Your task to perform on an android device: delete browsing data in the chrome app Image 0: 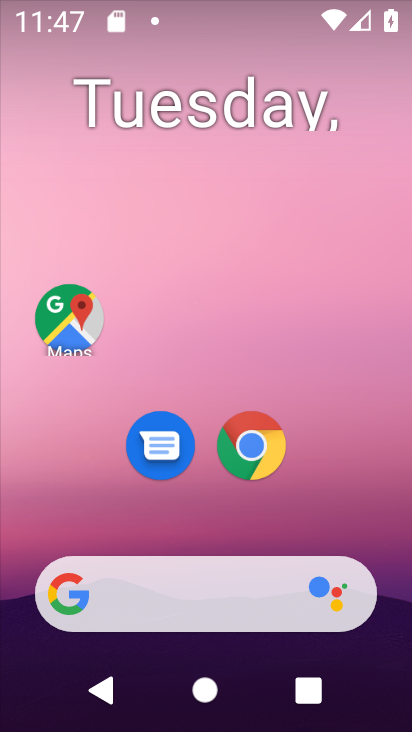
Step 0: drag from (387, 643) to (280, 100)
Your task to perform on an android device: delete browsing data in the chrome app Image 1: 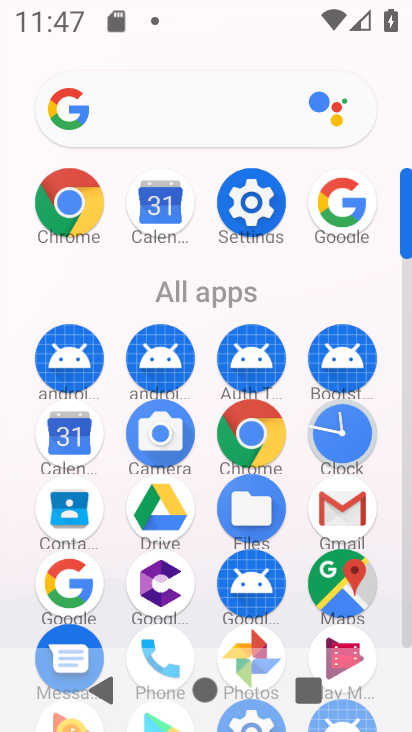
Step 1: click (259, 439)
Your task to perform on an android device: delete browsing data in the chrome app Image 2: 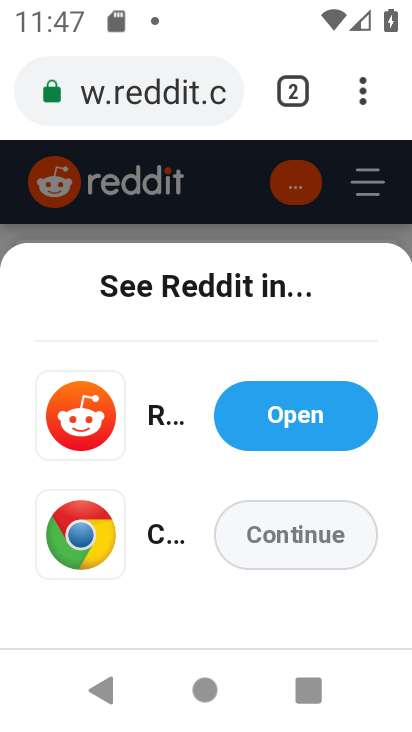
Step 2: press back button
Your task to perform on an android device: delete browsing data in the chrome app Image 3: 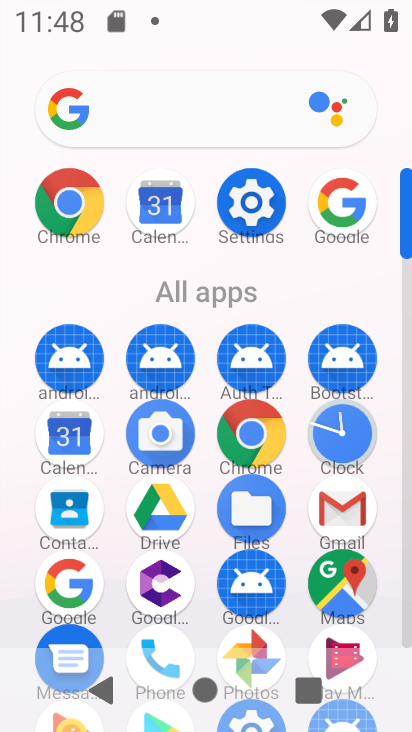
Step 3: click (74, 219)
Your task to perform on an android device: delete browsing data in the chrome app Image 4: 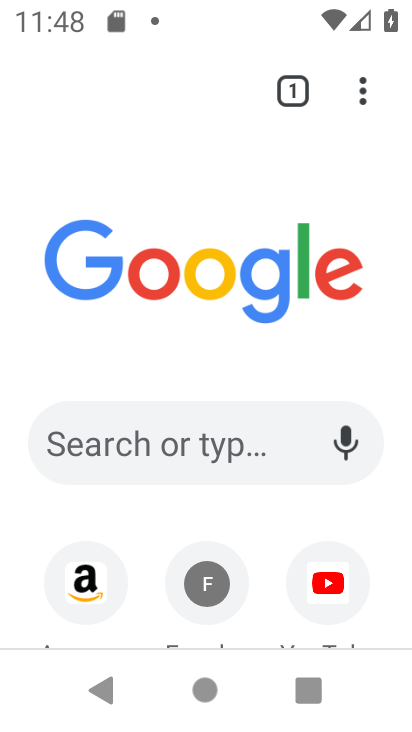
Step 4: press home button
Your task to perform on an android device: delete browsing data in the chrome app Image 5: 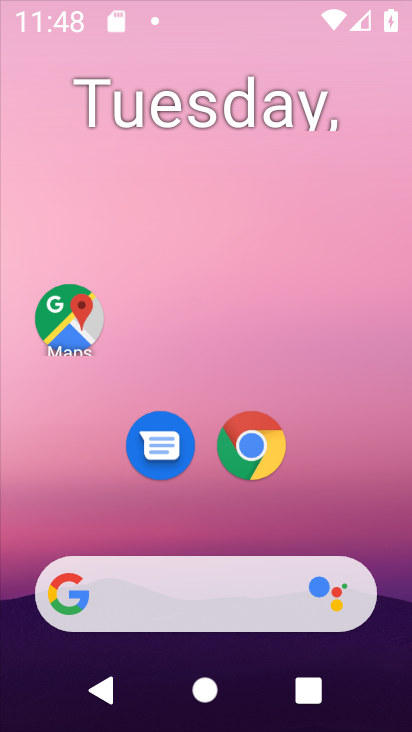
Step 5: drag from (391, 640) to (282, 80)
Your task to perform on an android device: delete browsing data in the chrome app Image 6: 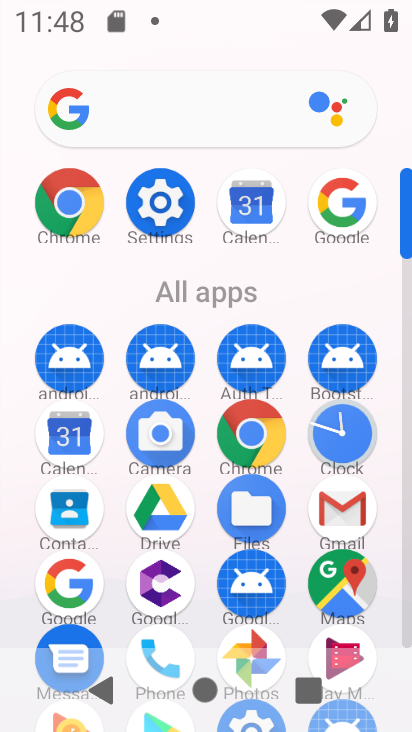
Step 6: click (82, 211)
Your task to perform on an android device: delete browsing data in the chrome app Image 7: 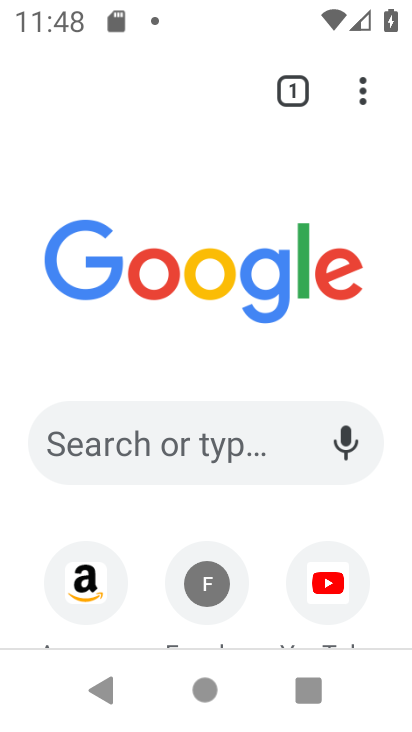
Step 7: click (365, 87)
Your task to perform on an android device: delete browsing data in the chrome app Image 8: 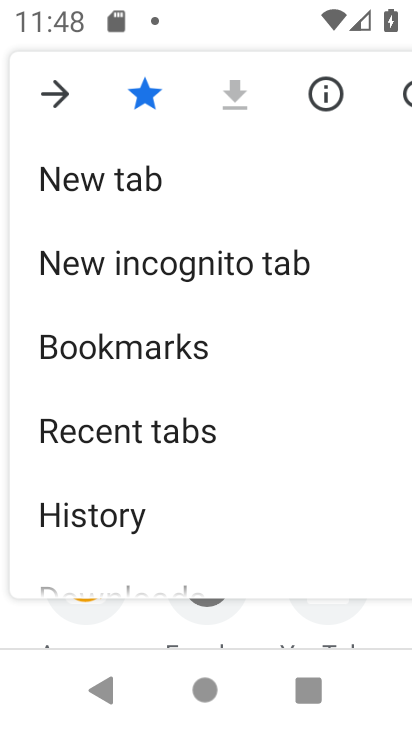
Step 8: click (187, 519)
Your task to perform on an android device: delete browsing data in the chrome app Image 9: 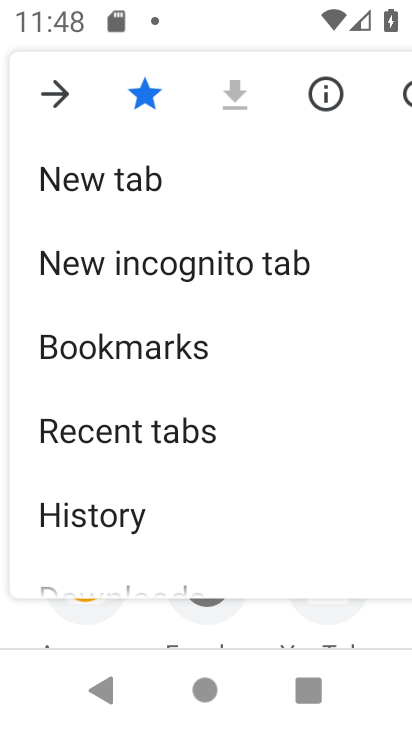
Step 9: drag from (212, 398) to (198, 118)
Your task to perform on an android device: delete browsing data in the chrome app Image 10: 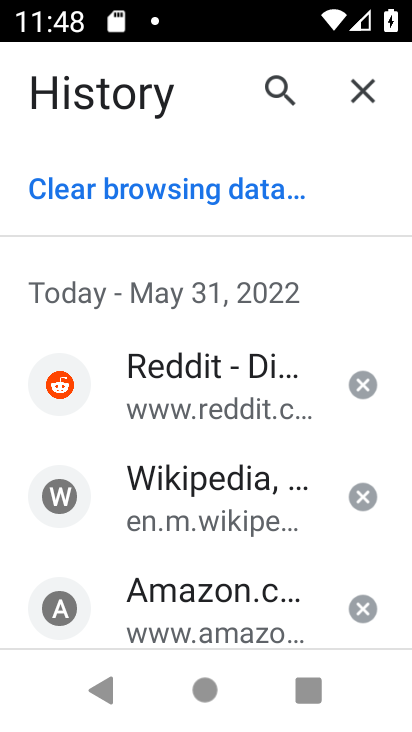
Step 10: click (161, 210)
Your task to perform on an android device: delete browsing data in the chrome app Image 11: 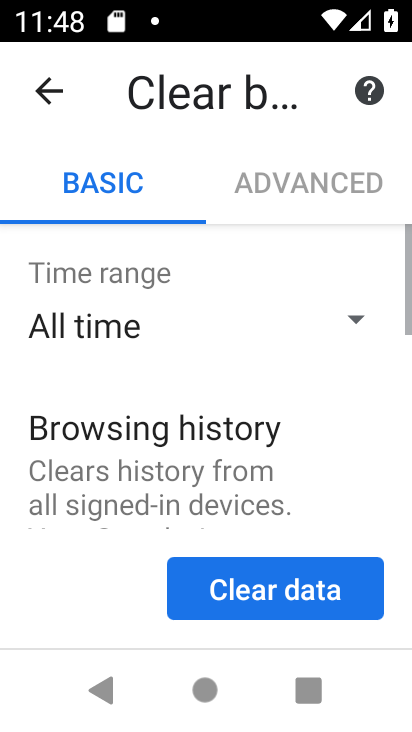
Step 11: click (312, 570)
Your task to perform on an android device: delete browsing data in the chrome app Image 12: 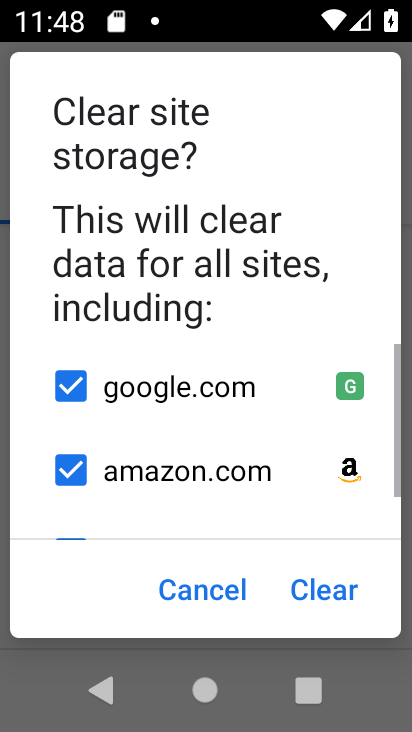
Step 12: click (334, 605)
Your task to perform on an android device: delete browsing data in the chrome app Image 13: 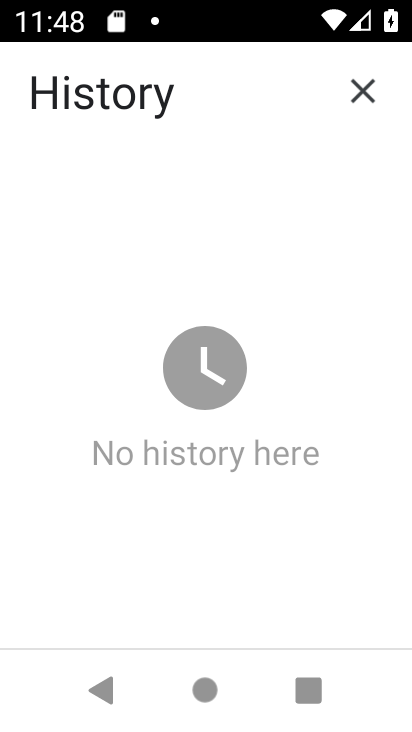
Step 13: task complete